Your task to perform on an android device: Open privacy settings Image 0: 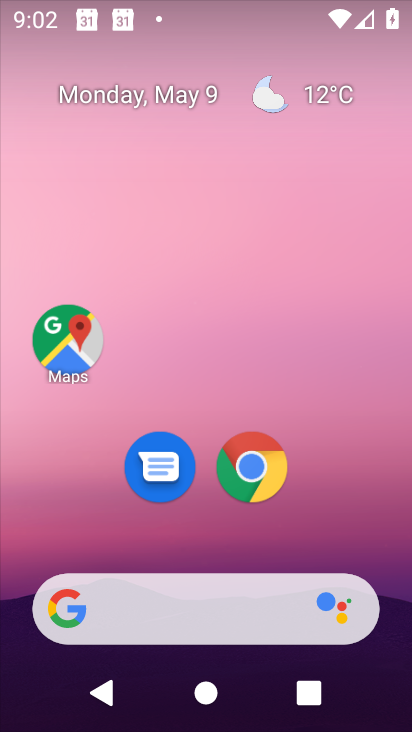
Step 0: drag from (382, 549) to (410, 66)
Your task to perform on an android device: Open privacy settings Image 1: 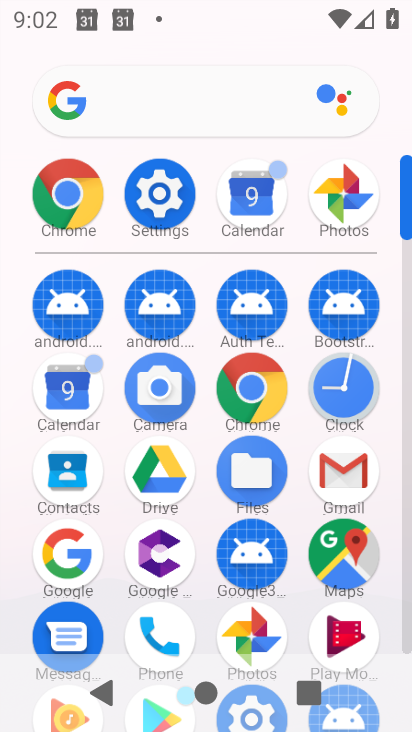
Step 1: click (164, 218)
Your task to perform on an android device: Open privacy settings Image 2: 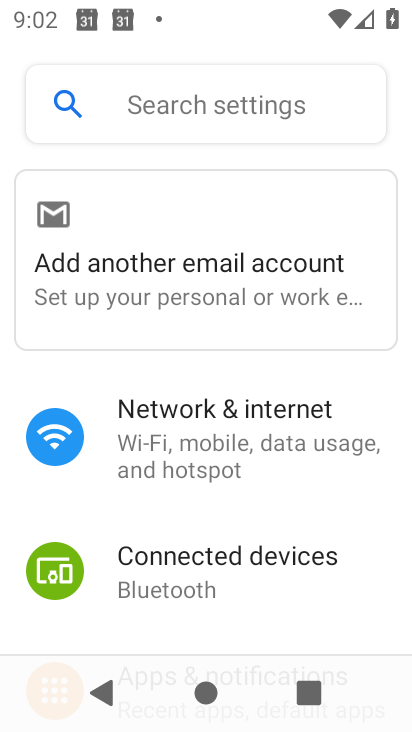
Step 2: drag from (257, 501) to (229, 113)
Your task to perform on an android device: Open privacy settings Image 3: 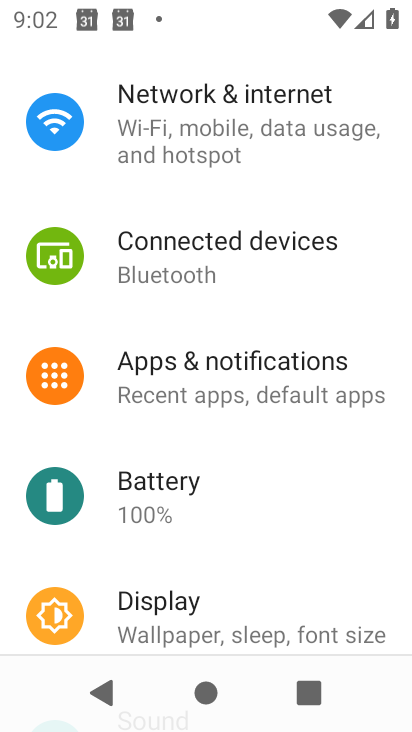
Step 3: drag from (216, 498) to (225, 99)
Your task to perform on an android device: Open privacy settings Image 4: 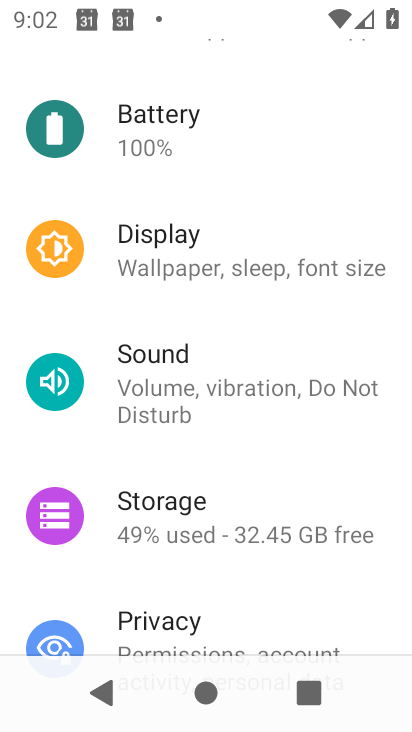
Step 4: click (177, 624)
Your task to perform on an android device: Open privacy settings Image 5: 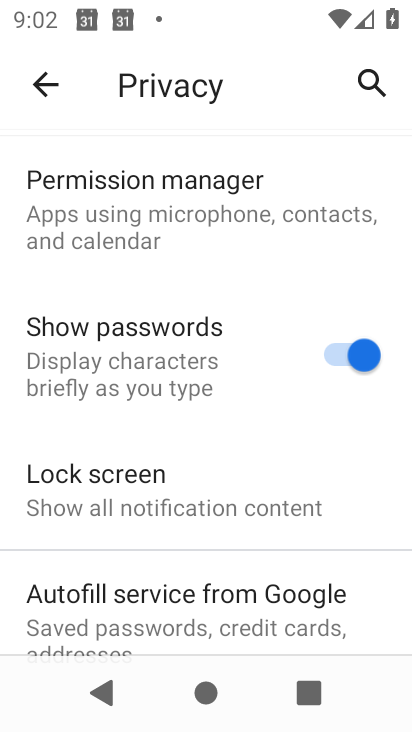
Step 5: task complete